Your task to perform on an android device: delete the emails in spam in the gmail app Image 0: 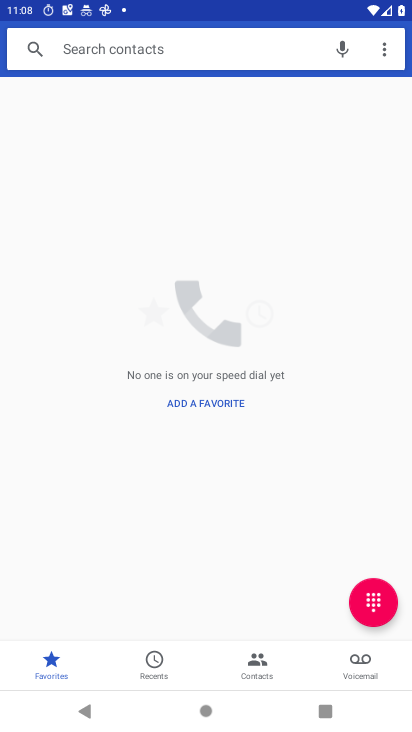
Step 0: press back button
Your task to perform on an android device: delete the emails in spam in the gmail app Image 1: 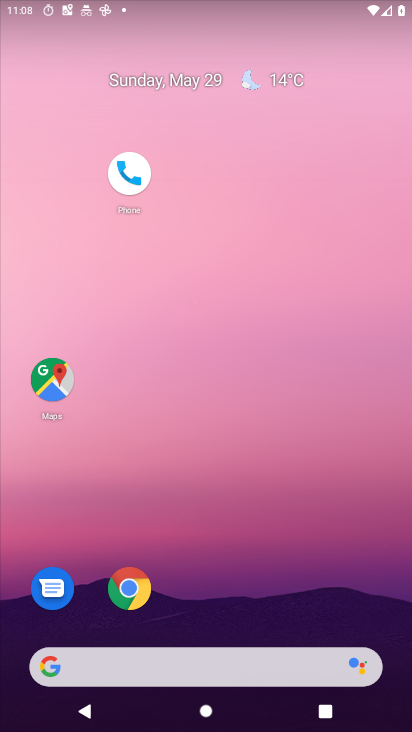
Step 1: click (197, 282)
Your task to perform on an android device: delete the emails in spam in the gmail app Image 2: 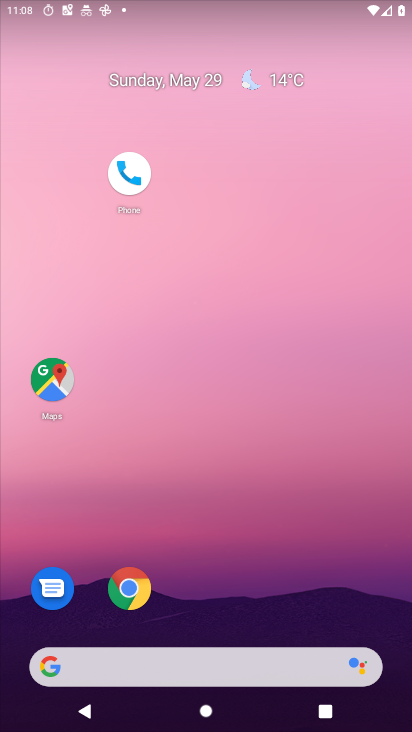
Step 2: drag from (260, 693) to (160, 230)
Your task to perform on an android device: delete the emails in spam in the gmail app Image 3: 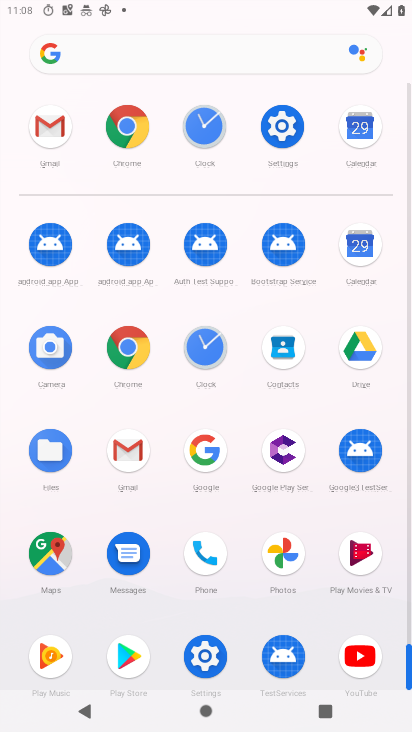
Step 3: click (120, 463)
Your task to perform on an android device: delete the emails in spam in the gmail app Image 4: 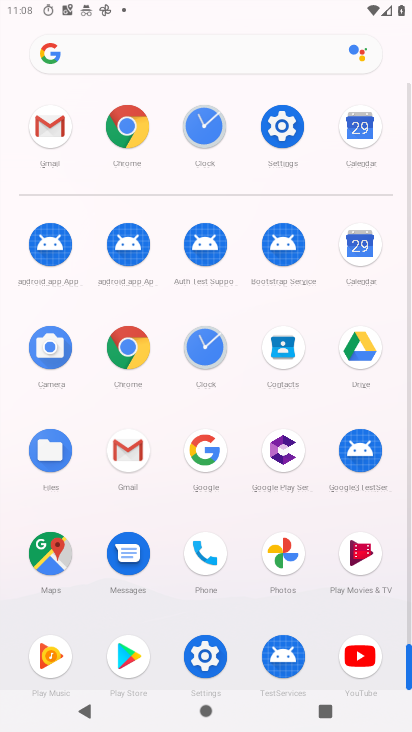
Step 4: click (135, 455)
Your task to perform on an android device: delete the emails in spam in the gmail app Image 5: 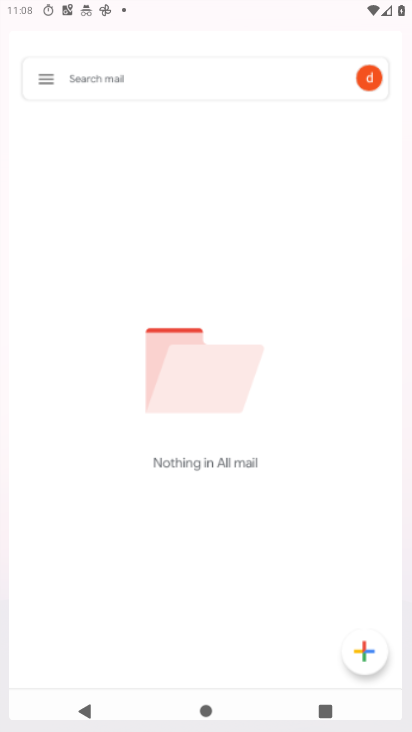
Step 5: click (129, 440)
Your task to perform on an android device: delete the emails in spam in the gmail app Image 6: 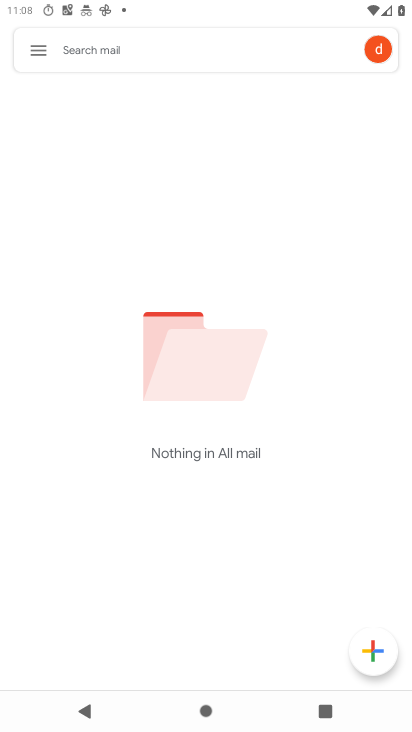
Step 6: click (123, 439)
Your task to perform on an android device: delete the emails in spam in the gmail app Image 7: 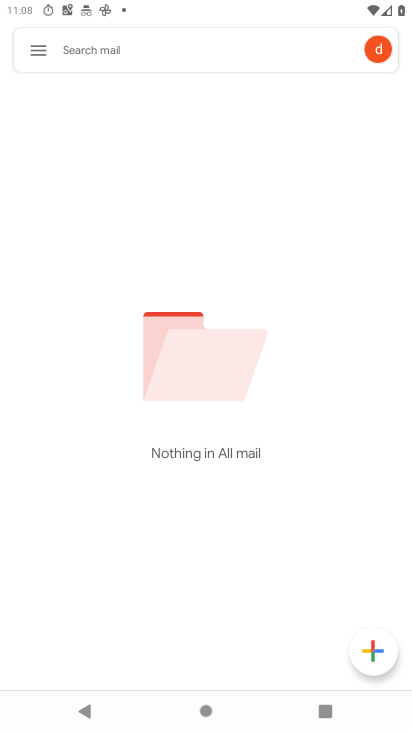
Step 7: click (31, 49)
Your task to perform on an android device: delete the emails in spam in the gmail app Image 8: 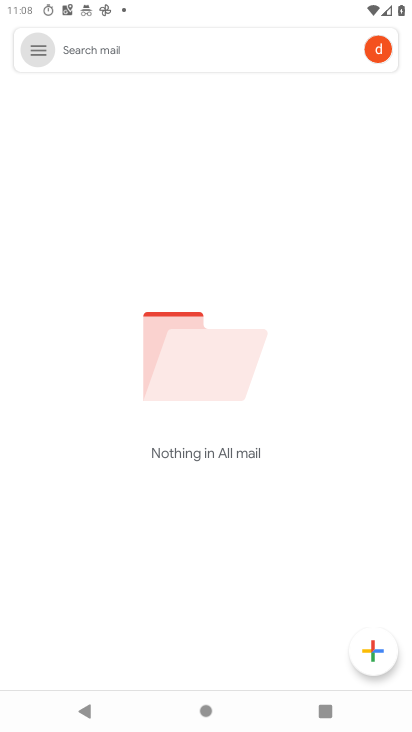
Step 8: click (31, 49)
Your task to perform on an android device: delete the emails in spam in the gmail app Image 9: 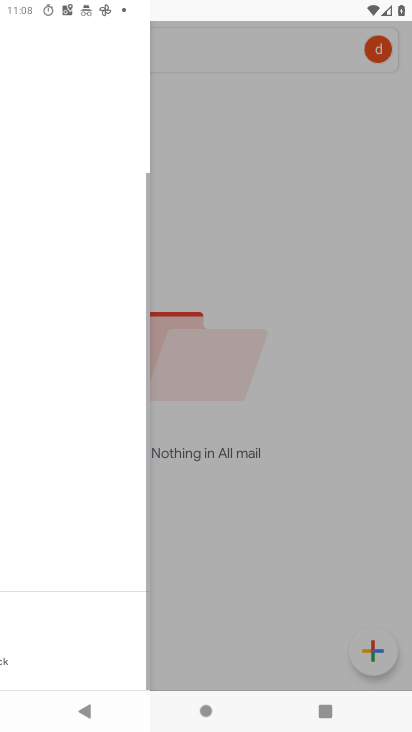
Step 9: click (31, 49)
Your task to perform on an android device: delete the emails in spam in the gmail app Image 10: 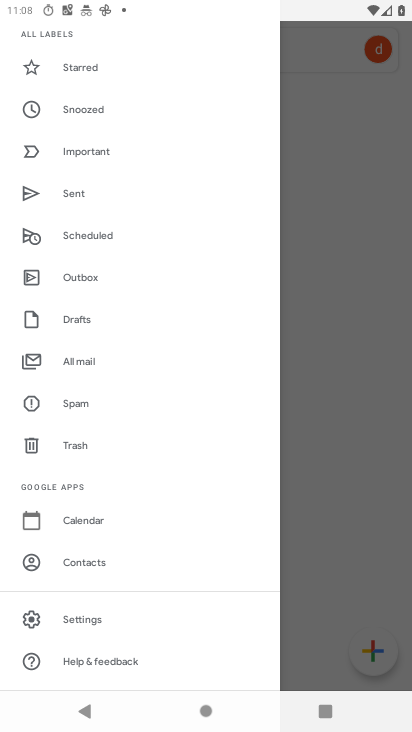
Step 10: click (124, 225)
Your task to perform on an android device: delete the emails in spam in the gmail app Image 11: 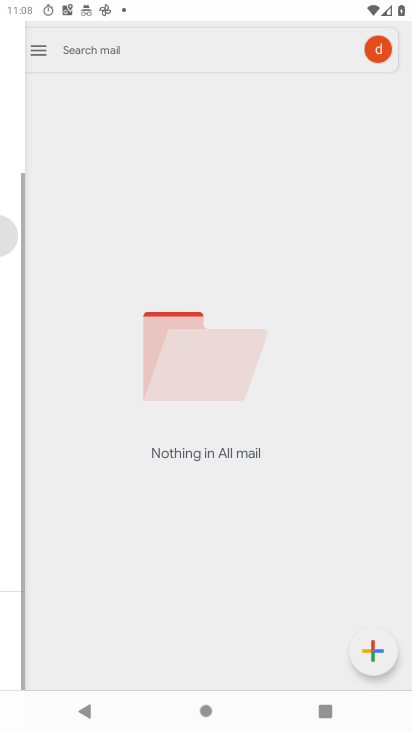
Step 11: click (134, 251)
Your task to perform on an android device: delete the emails in spam in the gmail app Image 12: 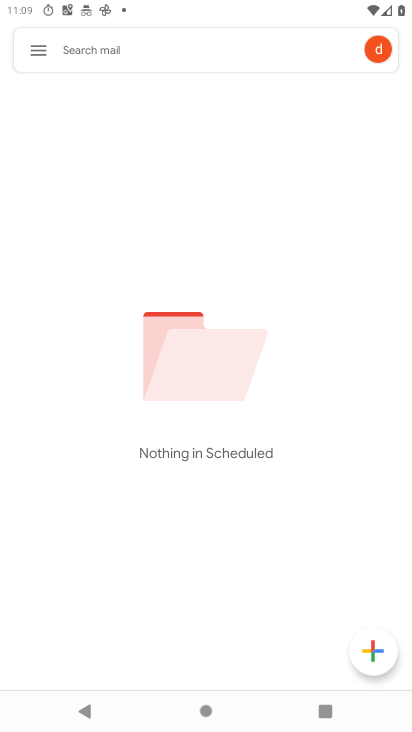
Step 12: press home button
Your task to perform on an android device: delete the emails in spam in the gmail app Image 13: 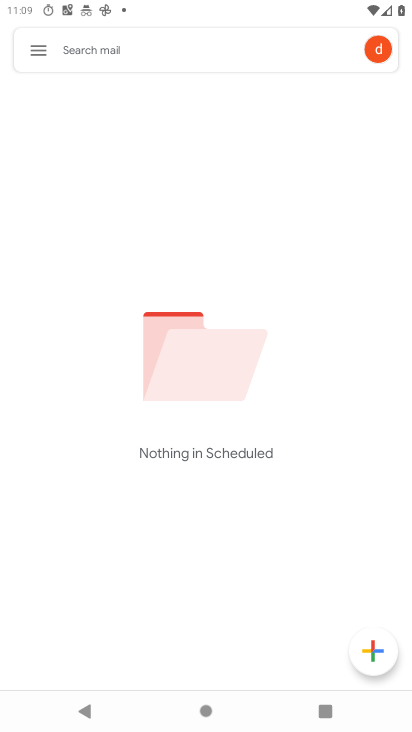
Step 13: press home button
Your task to perform on an android device: delete the emails in spam in the gmail app Image 14: 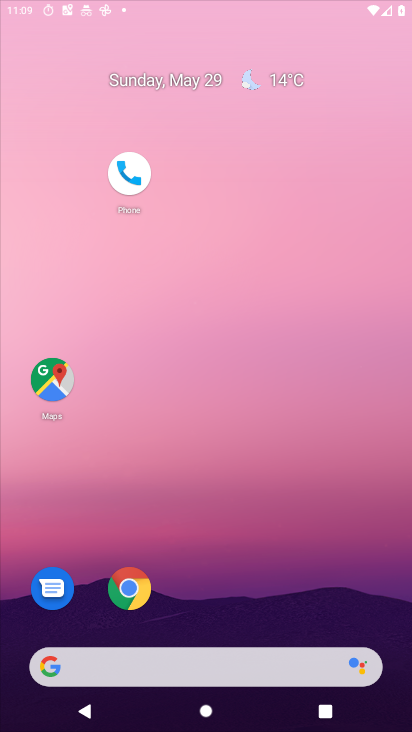
Step 14: press home button
Your task to perform on an android device: delete the emails in spam in the gmail app Image 15: 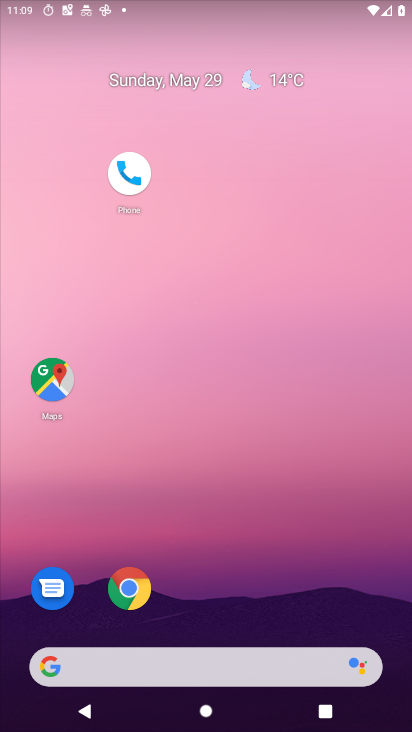
Step 15: drag from (265, 637) to (210, 196)
Your task to perform on an android device: delete the emails in spam in the gmail app Image 16: 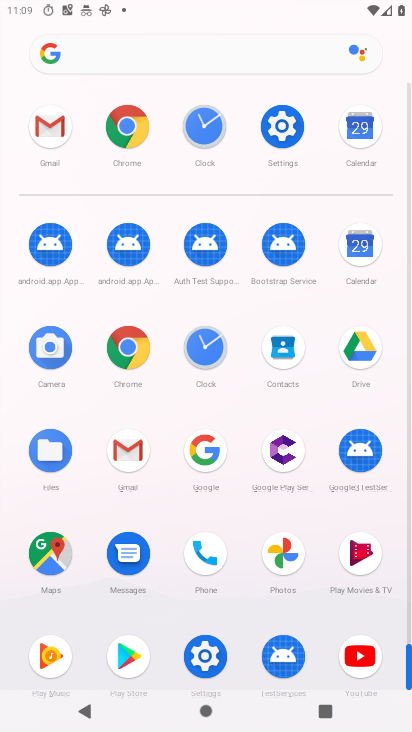
Step 16: click (119, 442)
Your task to perform on an android device: delete the emails in spam in the gmail app Image 17: 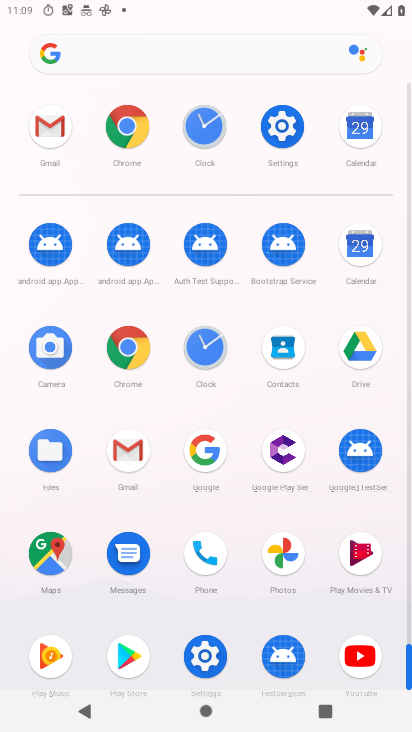
Step 17: click (121, 452)
Your task to perform on an android device: delete the emails in spam in the gmail app Image 18: 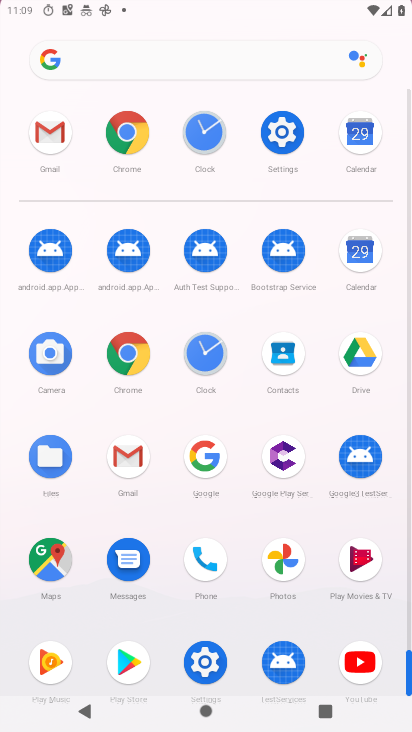
Step 18: click (123, 451)
Your task to perform on an android device: delete the emails in spam in the gmail app Image 19: 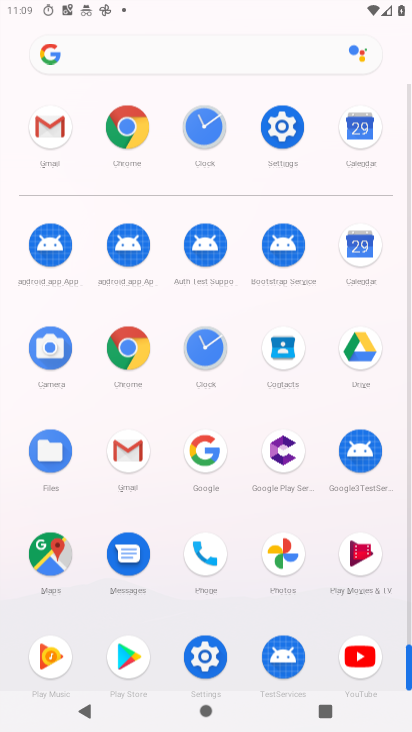
Step 19: click (123, 451)
Your task to perform on an android device: delete the emails in spam in the gmail app Image 20: 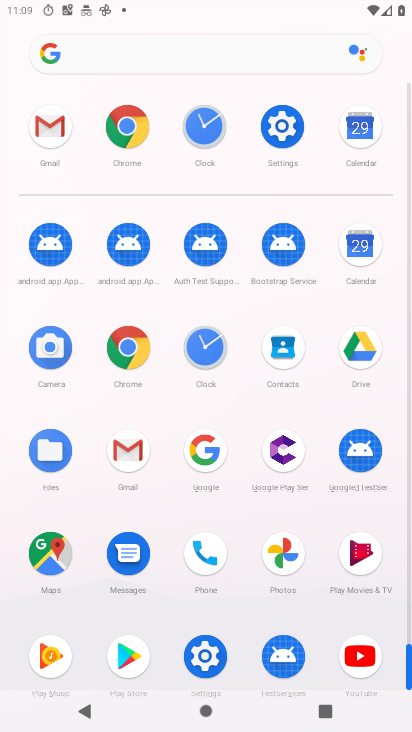
Step 20: click (124, 446)
Your task to perform on an android device: delete the emails in spam in the gmail app Image 21: 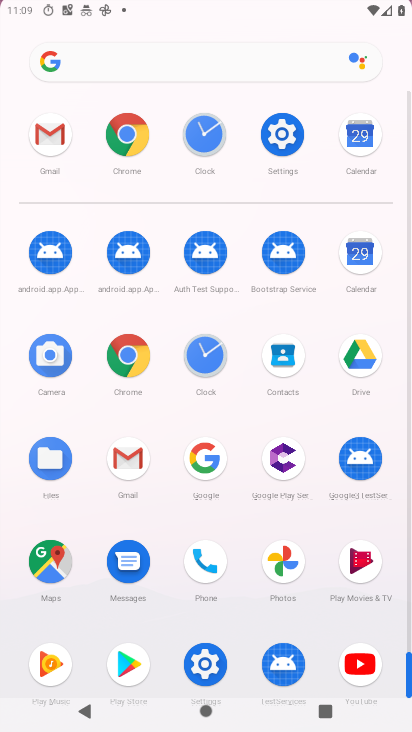
Step 21: click (123, 447)
Your task to perform on an android device: delete the emails in spam in the gmail app Image 22: 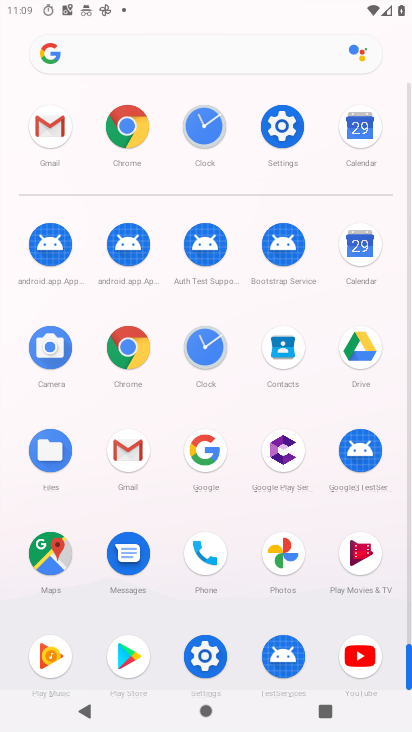
Step 22: click (123, 447)
Your task to perform on an android device: delete the emails in spam in the gmail app Image 23: 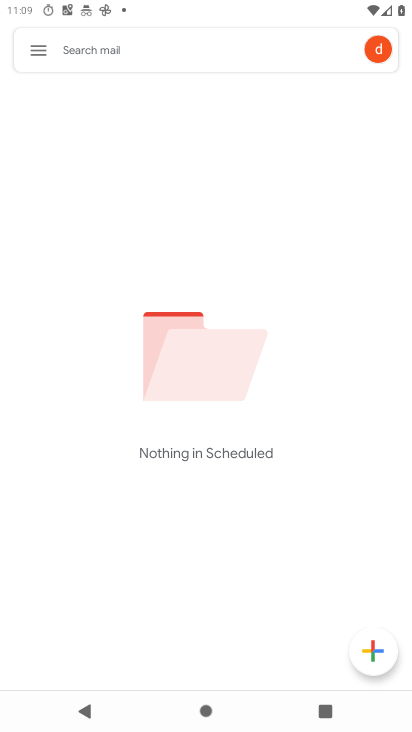
Step 23: click (131, 447)
Your task to perform on an android device: delete the emails in spam in the gmail app Image 24: 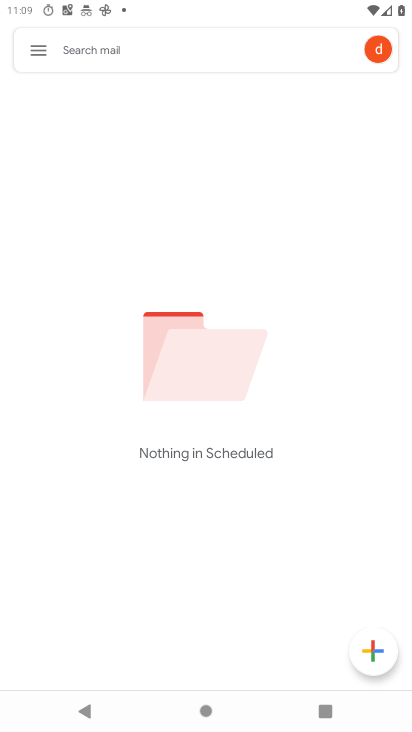
Step 24: click (32, 42)
Your task to perform on an android device: delete the emails in spam in the gmail app Image 25: 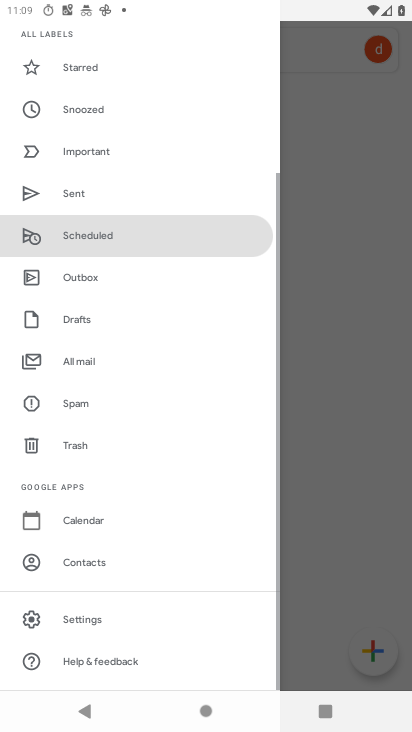
Step 25: click (42, 53)
Your task to perform on an android device: delete the emails in spam in the gmail app Image 26: 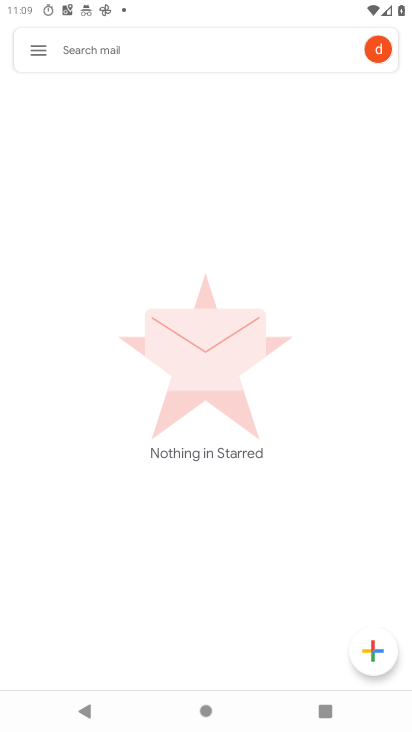
Step 26: click (37, 45)
Your task to perform on an android device: delete the emails in spam in the gmail app Image 27: 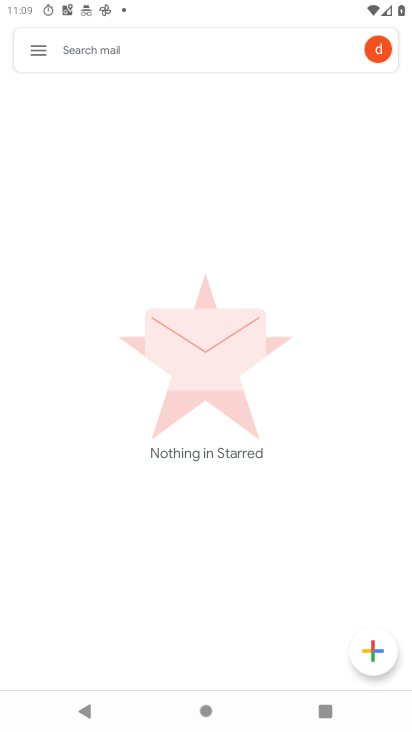
Step 27: click (42, 45)
Your task to perform on an android device: delete the emails in spam in the gmail app Image 28: 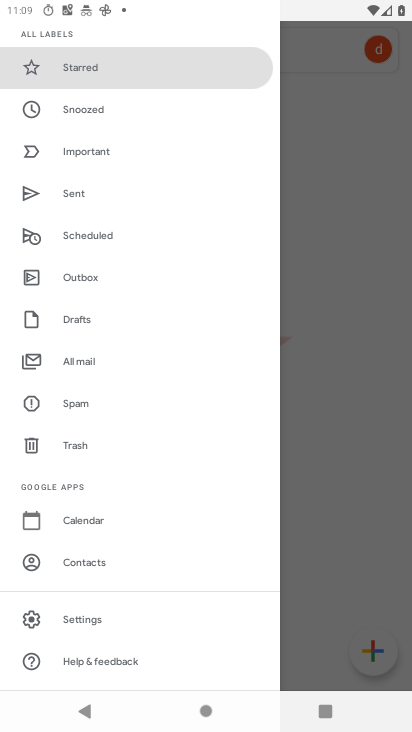
Step 28: click (83, 367)
Your task to perform on an android device: delete the emails in spam in the gmail app Image 29: 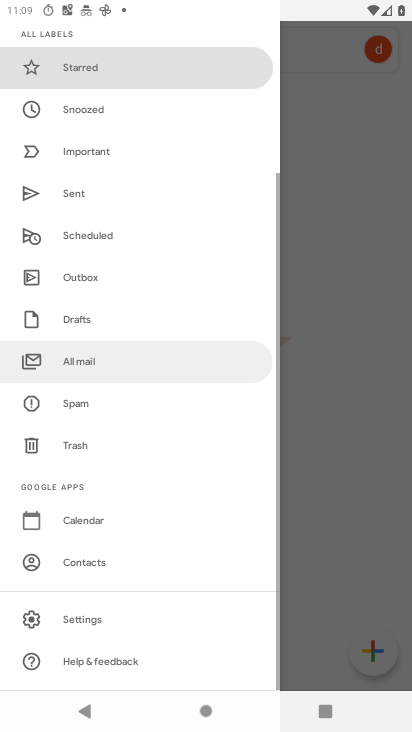
Step 29: click (83, 367)
Your task to perform on an android device: delete the emails in spam in the gmail app Image 30: 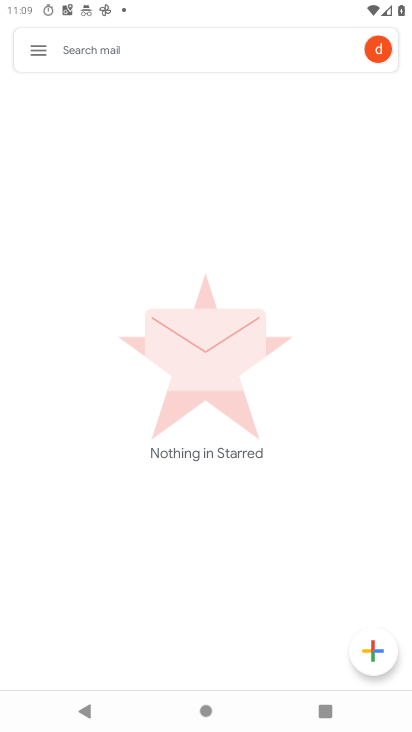
Step 30: click (84, 367)
Your task to perform on an android device: delete the emails in spam in the gmail app Image 31: 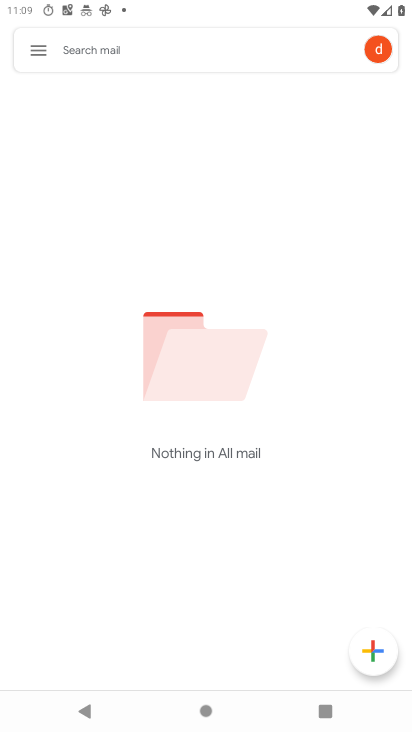
Step 31: task complete